Your task to perform on an android device: star an email in the gmail app Image 0: 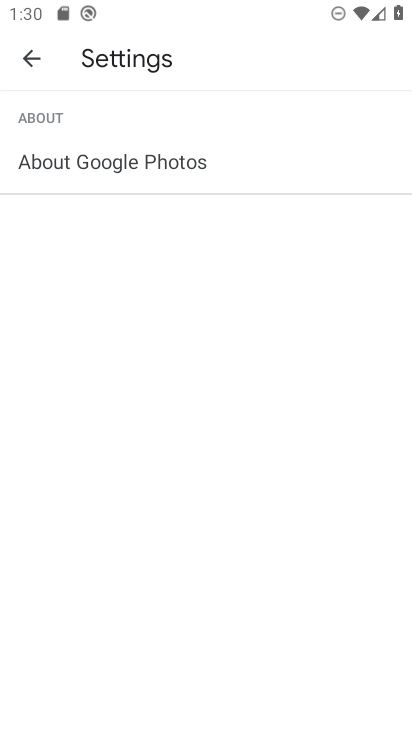
Step 0: press home button
Your task to perform on an android device: star an email in the gmail app Image 1: 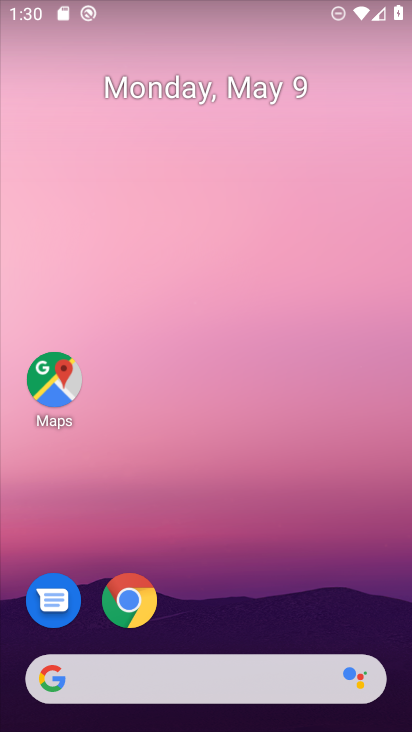
Step 1: drag from (175, 651) to (316, 190)
Your task to perform on an android device: star an email in the gmail app Image 2: 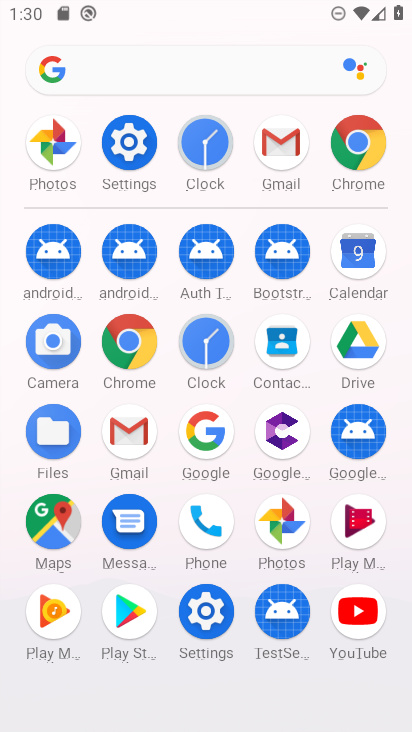
Step 2: click (283, 151)
Your task to perform on an android device: star an email in the gmail app Image 3: 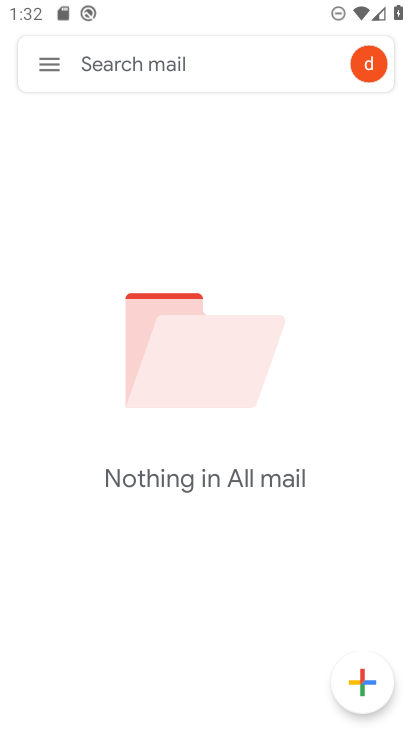
Step 3: task complete